Your task to perform on an android device: Open Google Chrome and open the bookmarks view Image 0: 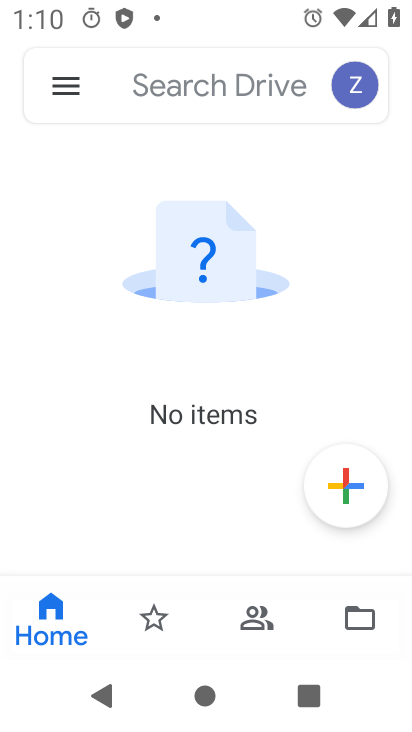
Step 0: press home button
Your task to perform on an android device: Open Google Chrome and open the bookmarks view Image 1: 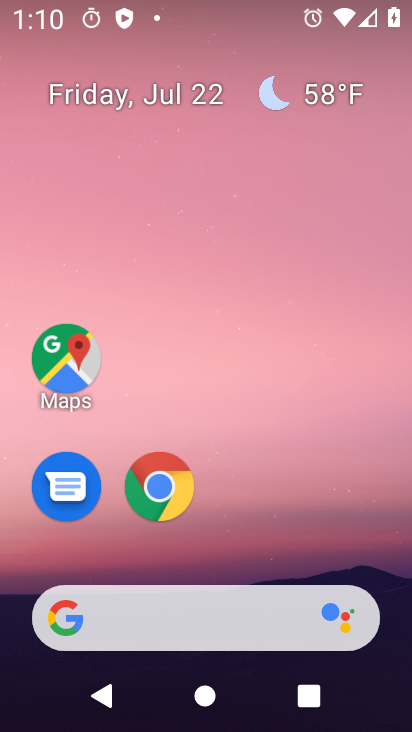
Step 1: drag from (390, 544) to (398, 155)
Your task to perform on an android device: Open Google Chrome and open the bookmarks view Image 2: 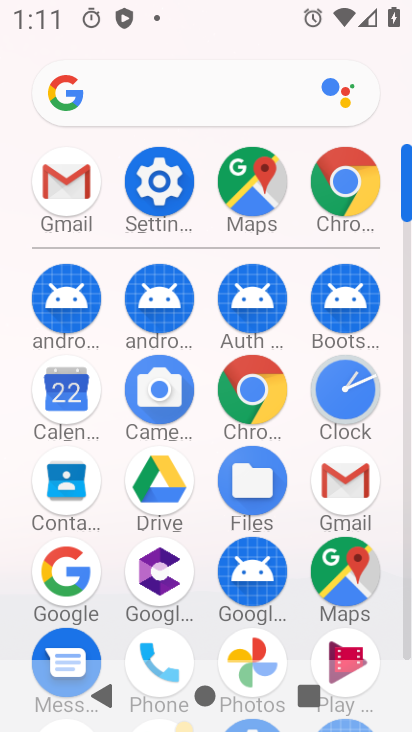
Step 2: click (347, 196)
Your task to perform on an android device: Open Google Chrome and open the bookmarks view Image 3: 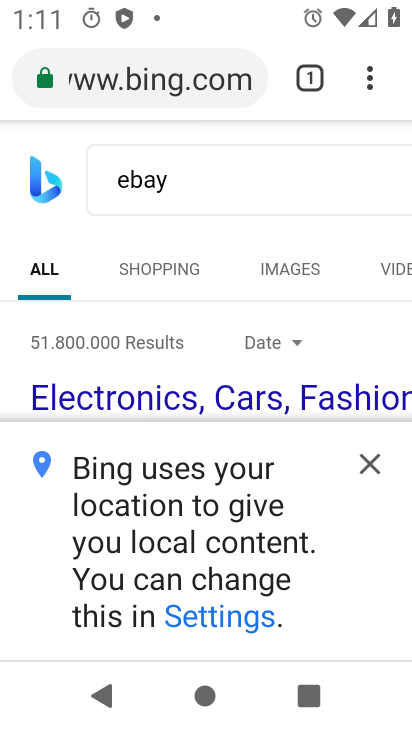
Step 3: click (372, 87)
Your task to perform on an android device: Open Google Chrome and open the bookmarks view Image 4: 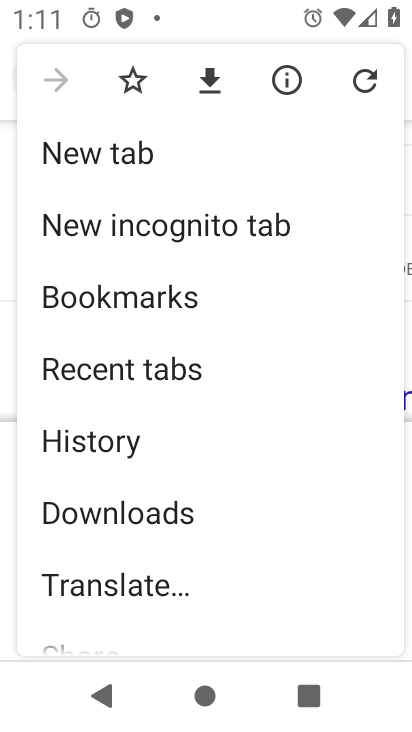
Step 4: drag from (333, 509) to (321, 395)
Your task to perform on an android device: Open Google Chrome and open the bookmarks view Image 5: 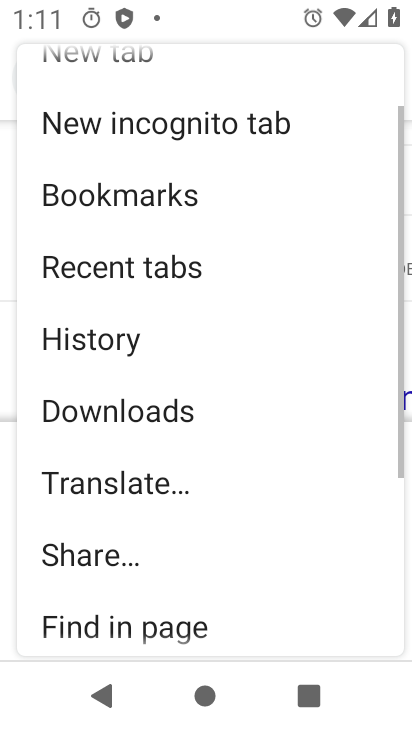
Step 5: drag from (321, 496) to (332, 358)
Your task to perform on an android device: Open Google Chrome and open the bookmarks view Image 6: 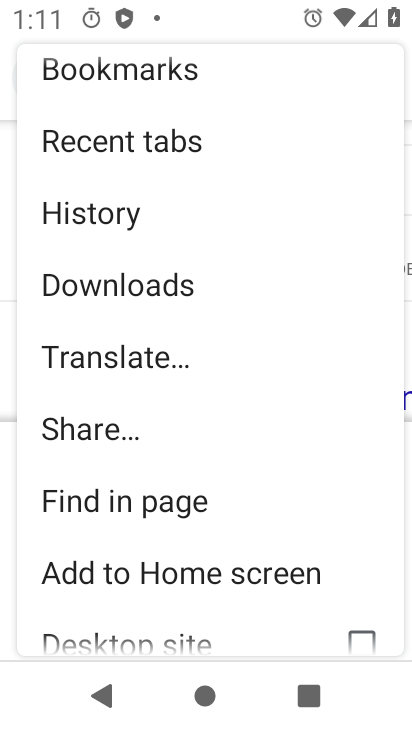
Step 6: drag from (322, 508) to (312, 395)
Your task to perform on an android device: Open Google Chrome and open the bookmarks view Image 7: 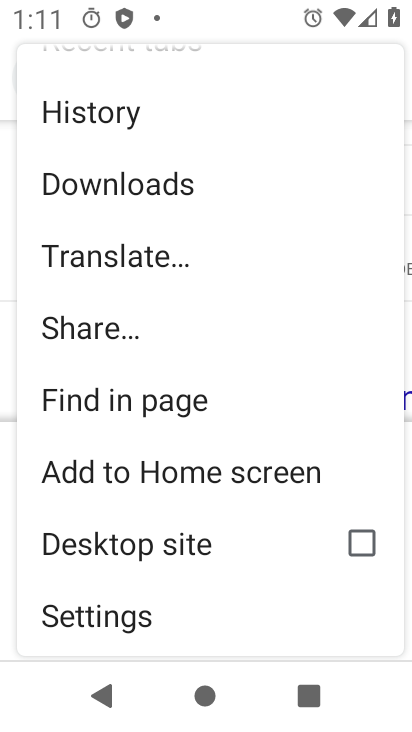
Step 7: drag from (246, 160) to (253, 337)
Your task to perform on an android device: Open Google Chrome and open the bookmarks view Image 8: 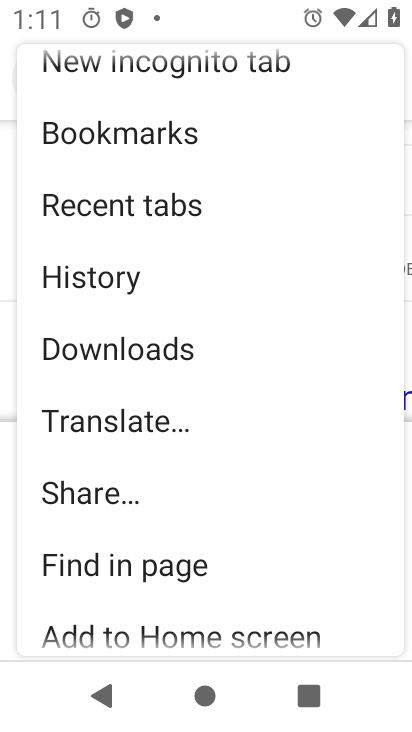
Step 8: click (181, 145)
Your task to perform on an android device: Open Google Chrome and open the bookmarks view Image 9: 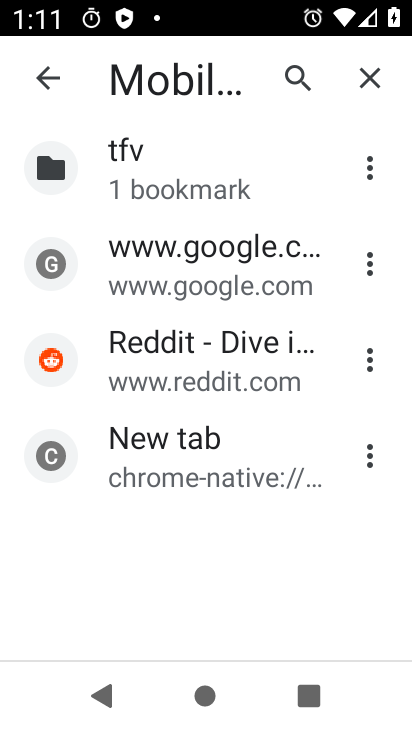
Step 9: task complete